Your task to perform on an android device: Go to privacy settings Image 0: 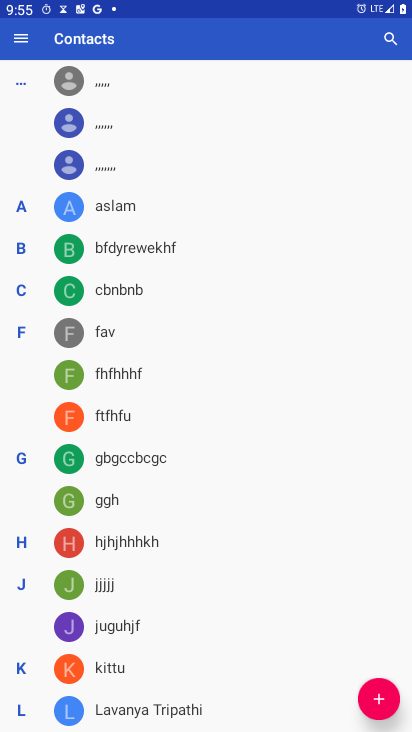
Step 0: press back button
Your task to perform on an android device: Go to privacy settings Image 1: 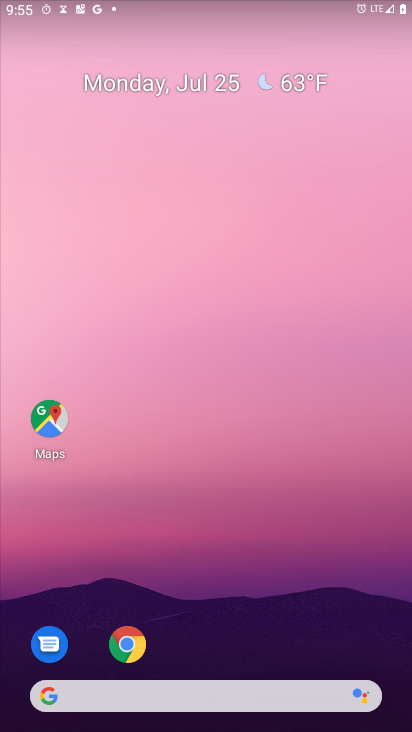
Step 1: drag from (262, 647) to (190, 302)
Your task to perform on an android device: Go to privacy settings Image 2: 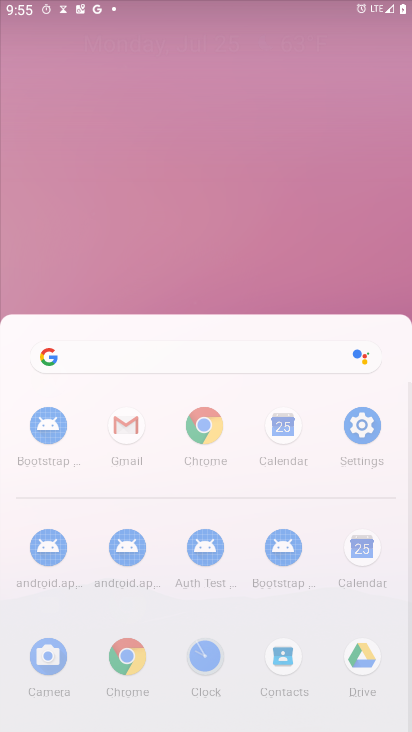
Step 2: drag from (251, 510) to (251, 136)
Your task to perform on an android device: Go to privacy settings Image 3: 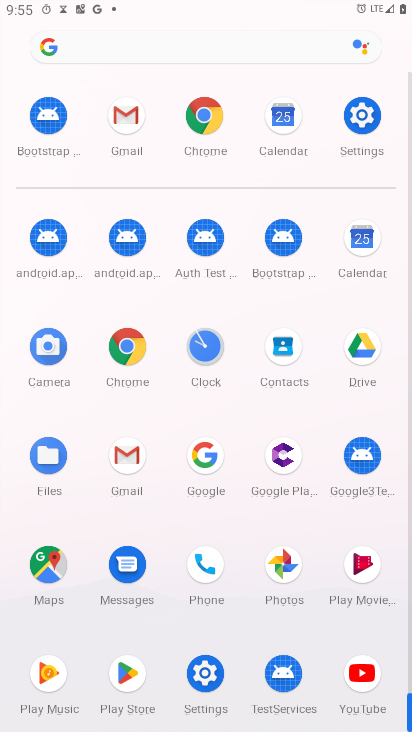
Step 3: click (205, 672)
Your task to perform on an android device: Go to privacy settings Image 4: 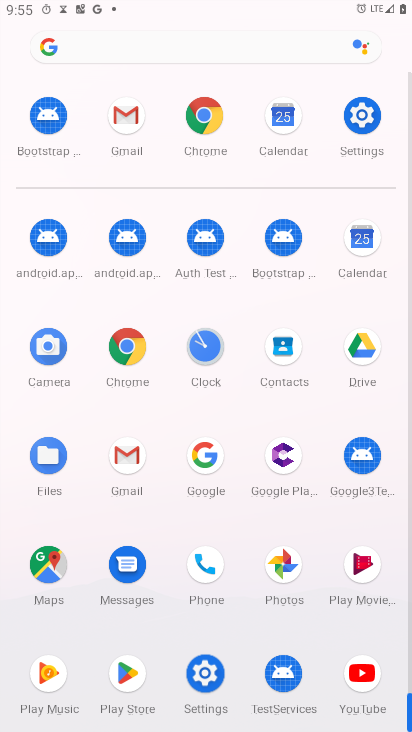
Step 4: click (205, 672)
Your task to perform on an android device: Go to privacy settings Image 5: 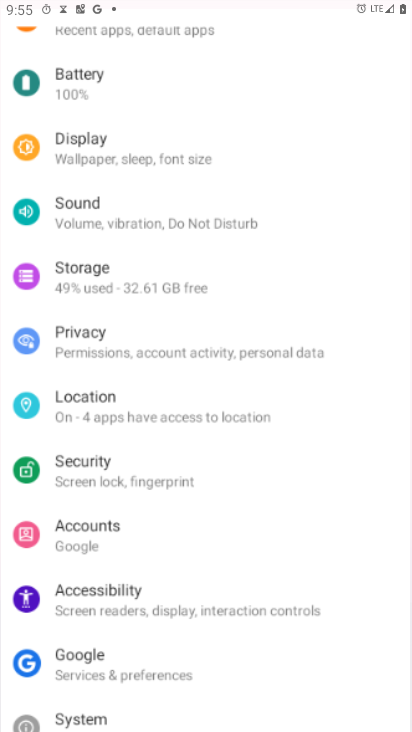
Step 5: click (205, 672)
Your task to perform on an android device: Go to privacy settings Image 6: 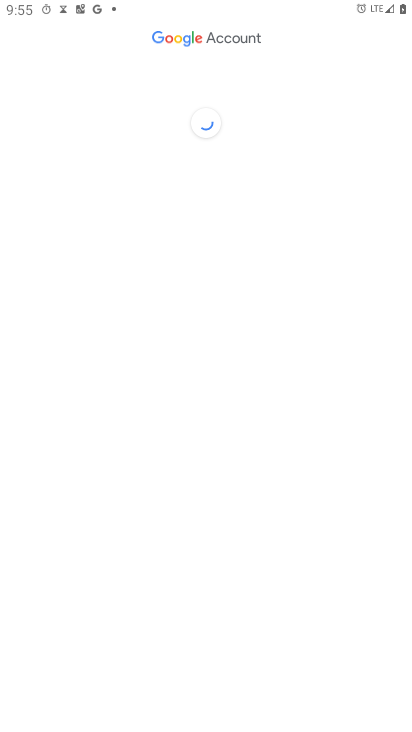
Step 6: click (54, 335)
Your task to perform on an android device: Go to privacy settings Image 7: 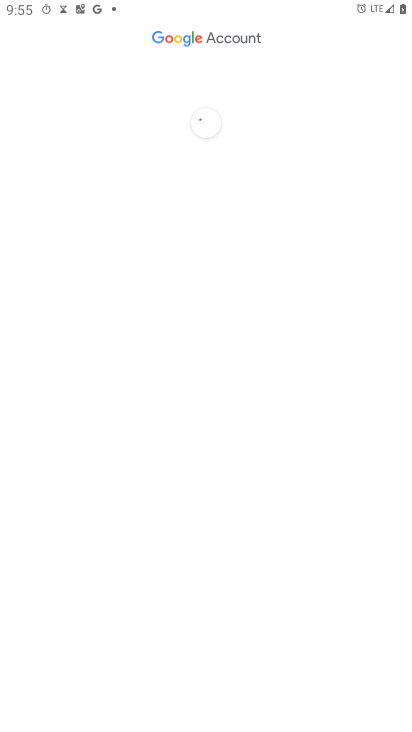
Step 7: click (54, 335)
Your task to perform on an android device: Go to privacy settings Image 8: 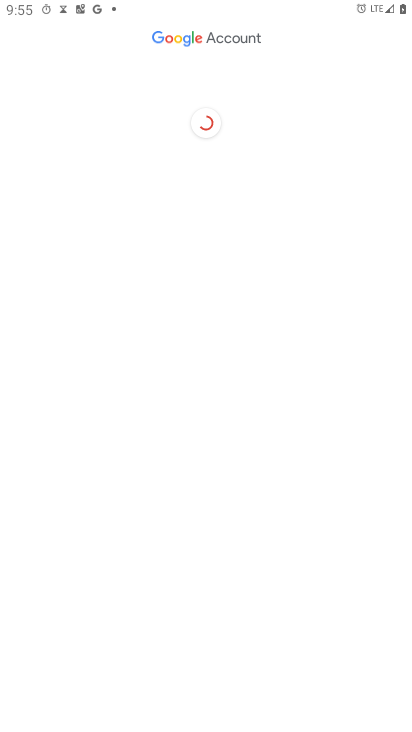
Step 8: click (54, 335)
Your task to perform on an android device: Go to privacy settings Image 9: 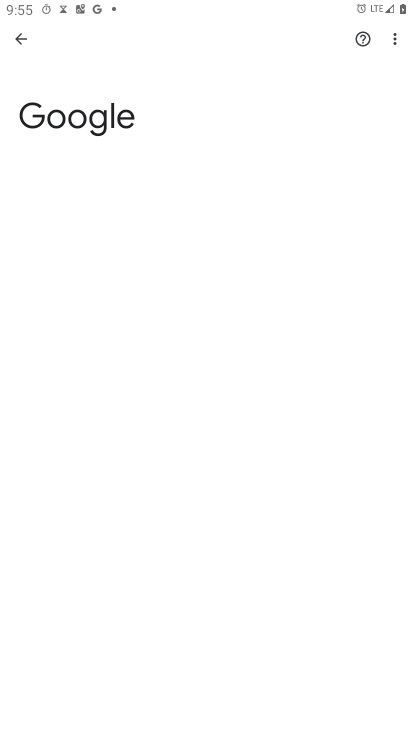
Step 9: click (93, 335)
Your task to perform on an android device: Go to privacy settings Image 10: 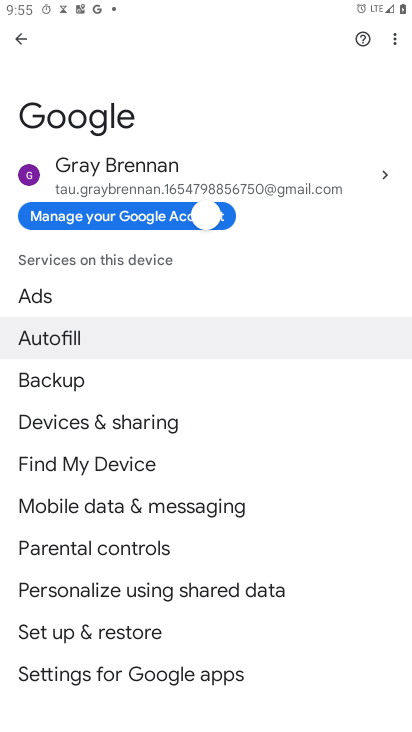
Step 10: click (96, 334)
Your task to perform on an android device: Go to privacy settings Image 11: 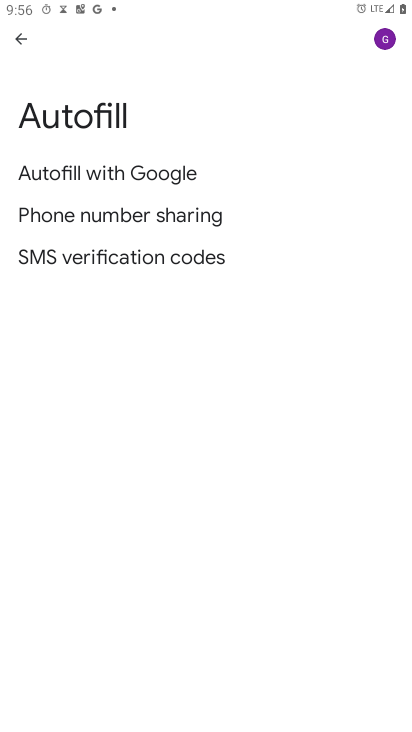
Step 11: click (20, 41)
Your task to perform on an android device: Go to privacy settings Image 12: 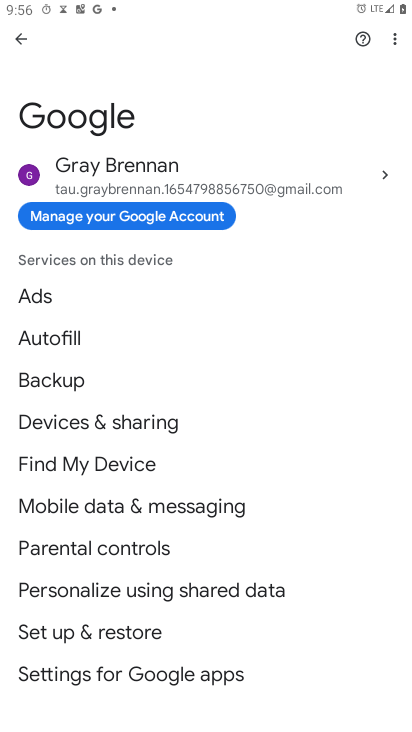
Step 12: click (15, 43)
Your task to perform on an android device: Go to privacy settings Image 13: 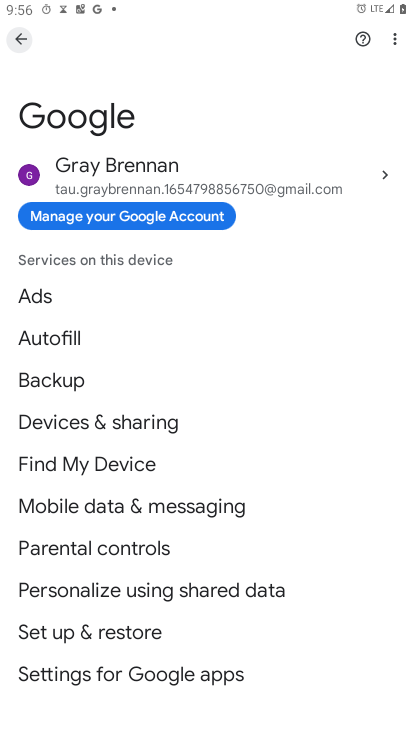
Step 13: click (12, 42)
Your task to perform on an android device: Go to privacy settings Image 14: 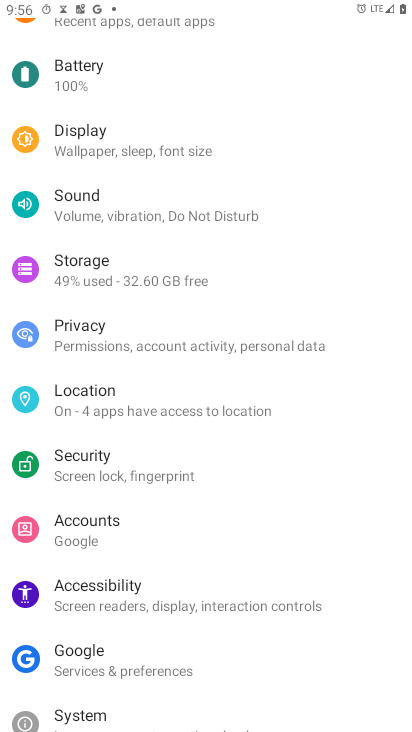
Step 14: click (65, 335)
Your task to perform on an android device: Go to privacy settings Image 15: 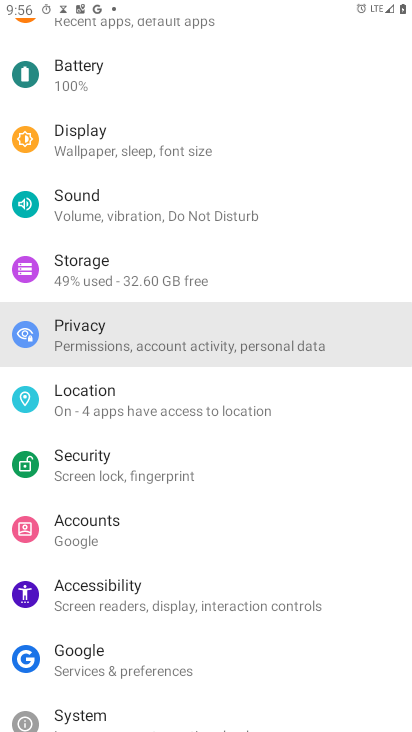
Step 15: click (64, 334)
Your task to perform on an android device: Go to privacy settings Image 16: 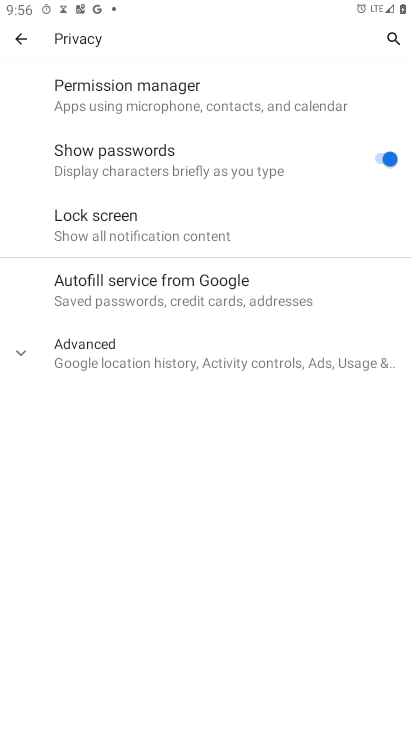
Step 16: task complete